Your task to perform on an android device: move a message to another label in the gmail app Image 0: 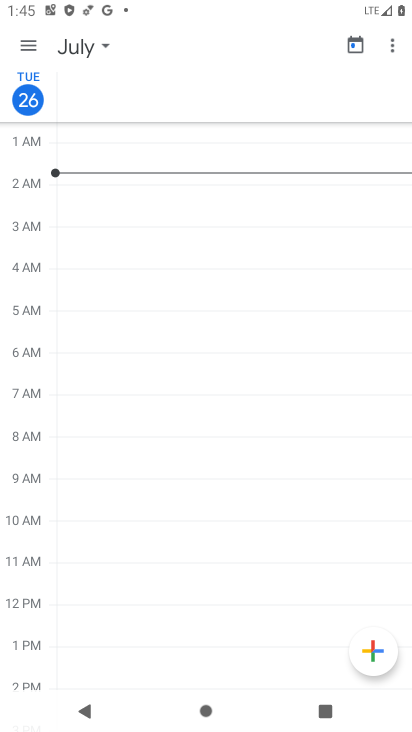
Step 0: press home button
Your task to perform on an android device: move a message to another label in the gmail app Image 1: 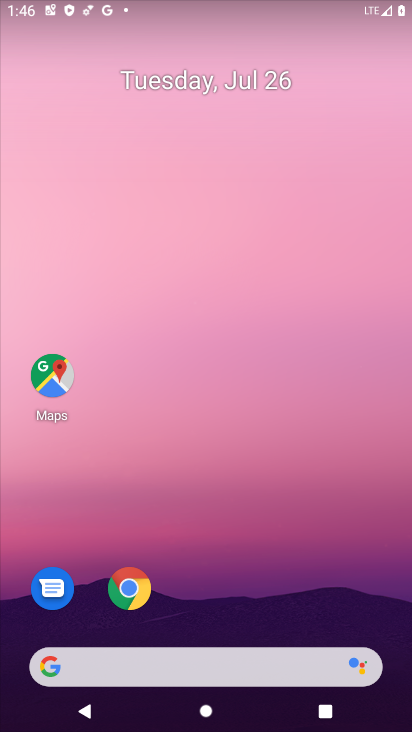
Step 1: drag from (238, 629) to (302, 37)
Your task to perform on an android device: move a message to another label in the gmail app Image 2: 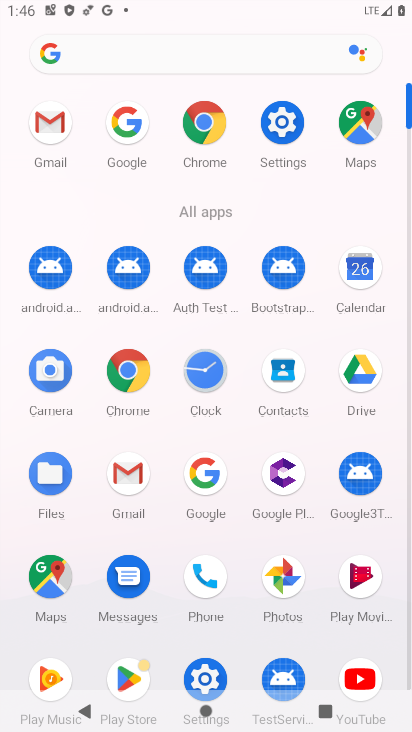
Step 2: click (132, 500)
Your task to perform on an android device: move a message to another label in the gmail app Image 3: 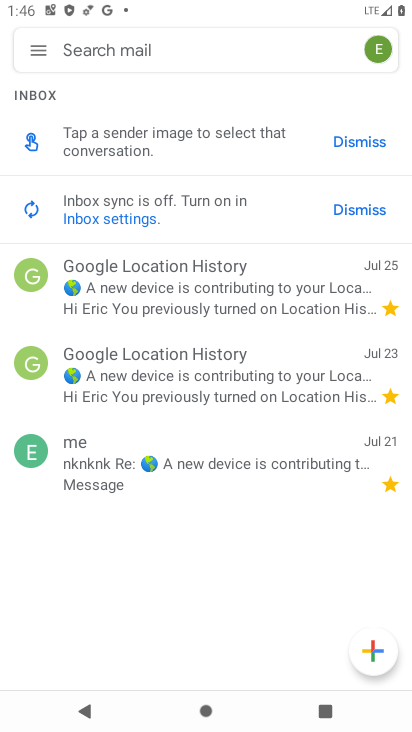
Step 3: click (184, 260)
Your task to perform on an android device: move a message to another label in the gmail app Image 4: 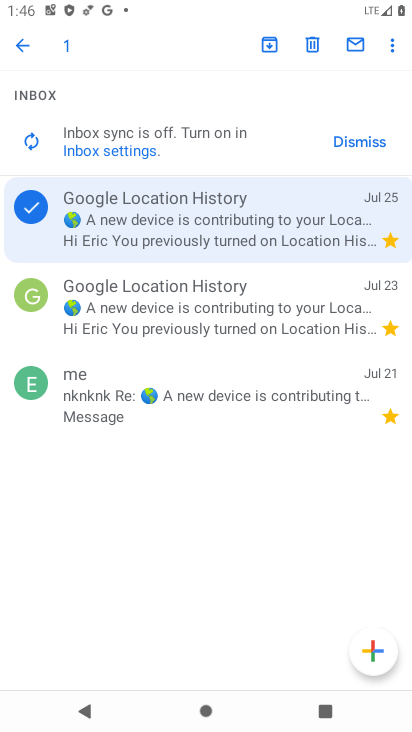
Step 4: click (391, 42)
Your task to perform on an android device: move a message to another label in the gmail app Image 5: 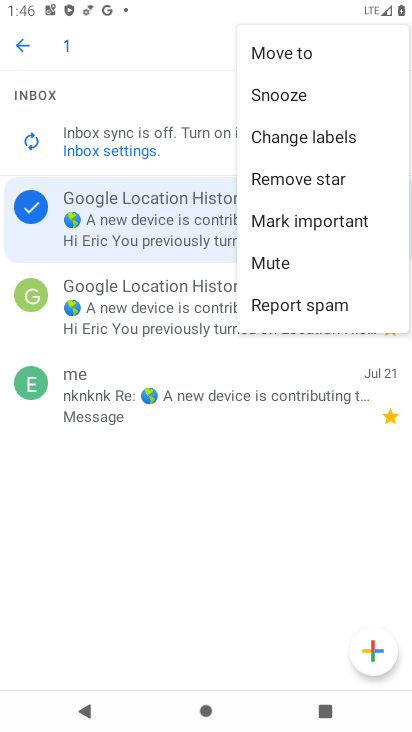
Step 5: click (303, 139)
Your task to perform on an android device: move a message to another label in the gmail app Image 6: 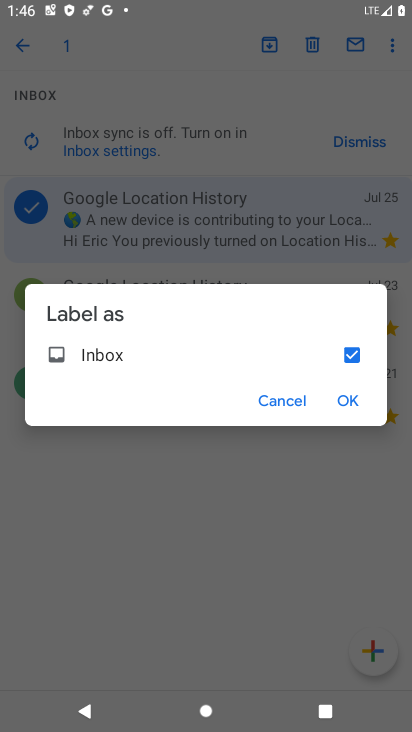
Step 6: click (355, 357)
Your task to perform on an android device: move a message to another label in the gmail app Image 7: 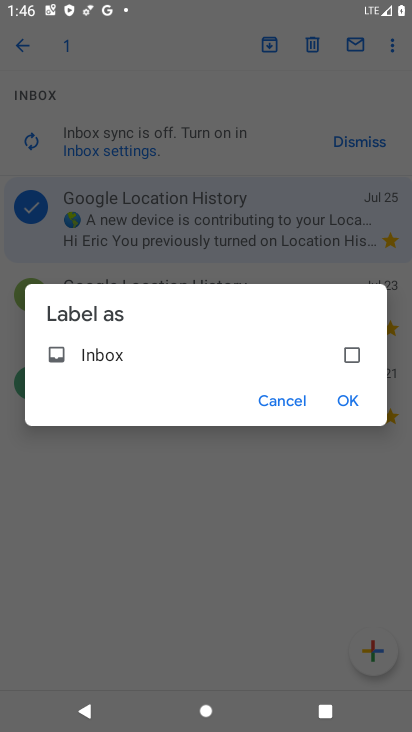
Step 7: click (353, 400)
Your task to perform on an android device: move a message to another label in the gmail app Image 8: 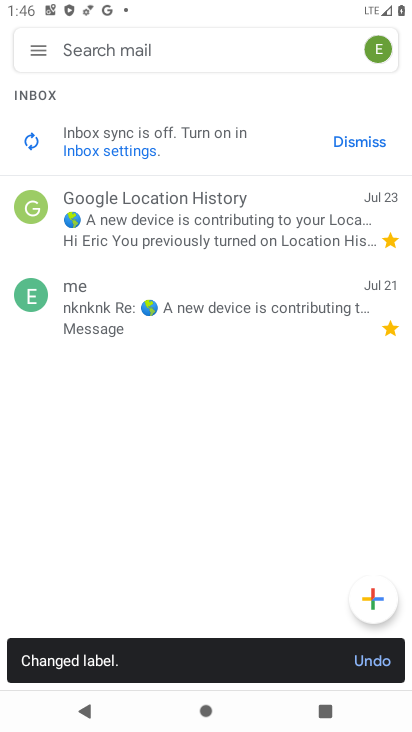
Step 8: task complete